Your task to perform on an android device: toggle show notifications on the lock screen Image 0: 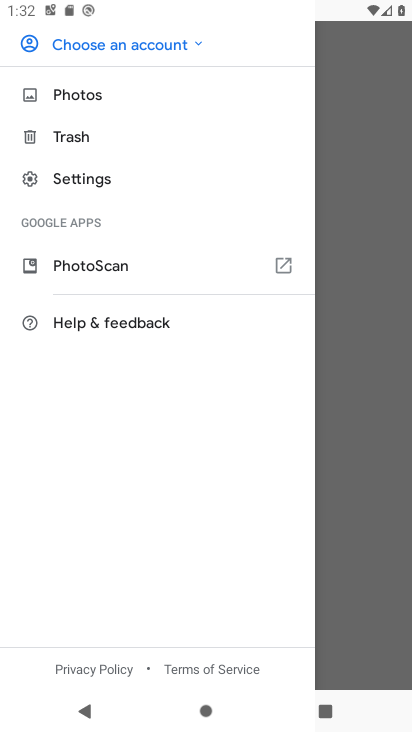
Step 0: press home button
Your task to perform on an android device: toggle show notifications on the lock screen Image 1: 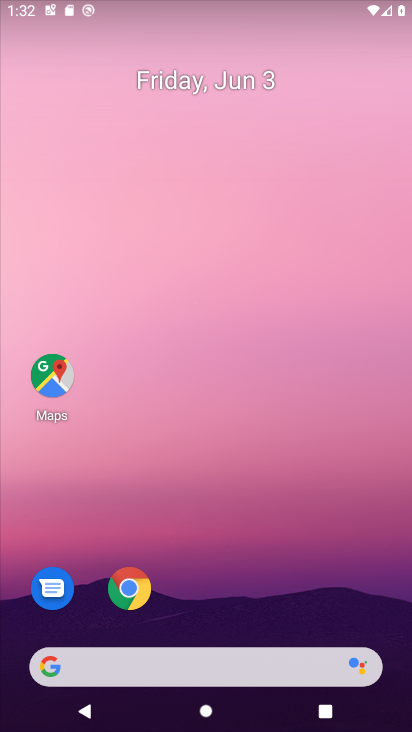
Step 1: drag from (181, 663) to (247, 101)
Your task to perform on an android device: toggle show notifications on the lock screen Image 2: 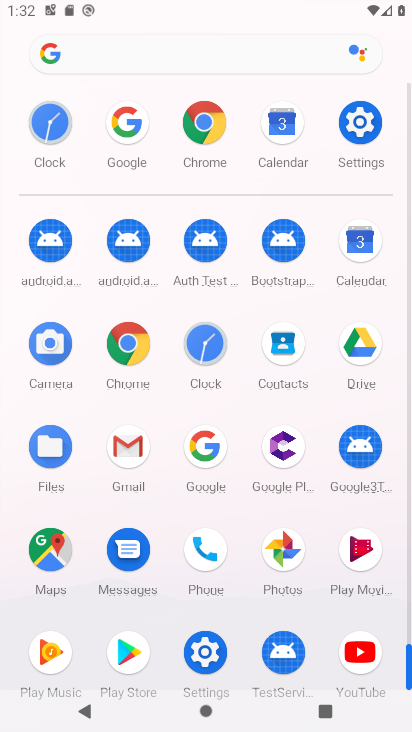
Step 2: click (368, 151)
Your task to perform on an android device: toggle show notifications on the lock screen Image 3: 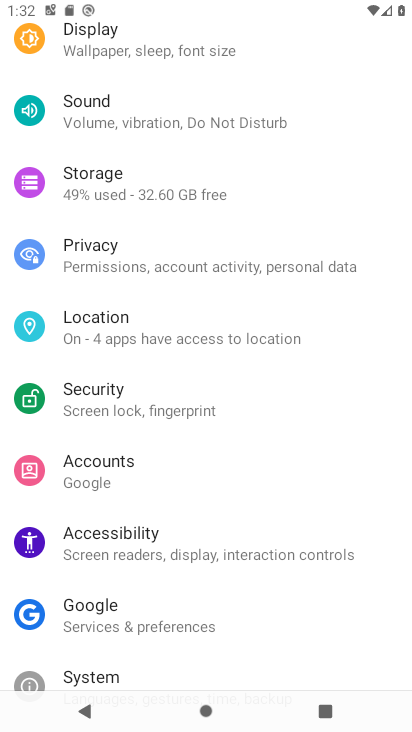
Step 3: drag from (176, 464) to (139, 570)
Your task to perform on an android device: toggle show notifications on the lock screen Image 4: 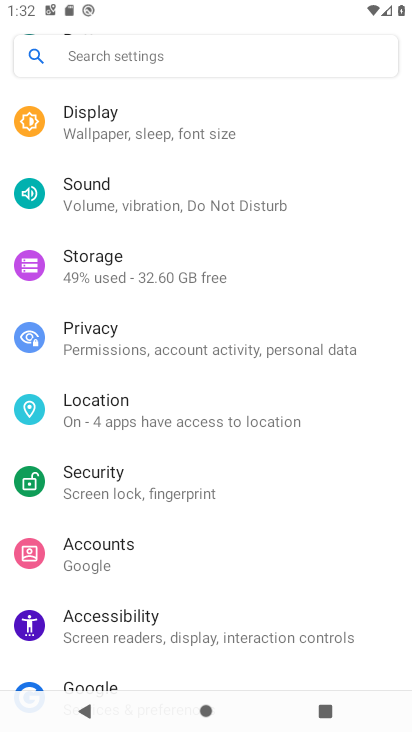
Step 4: drag from (187, 295) to (140, 572)
Your task to perform on an android device: toggle show notifications on the lock screen Image 5: 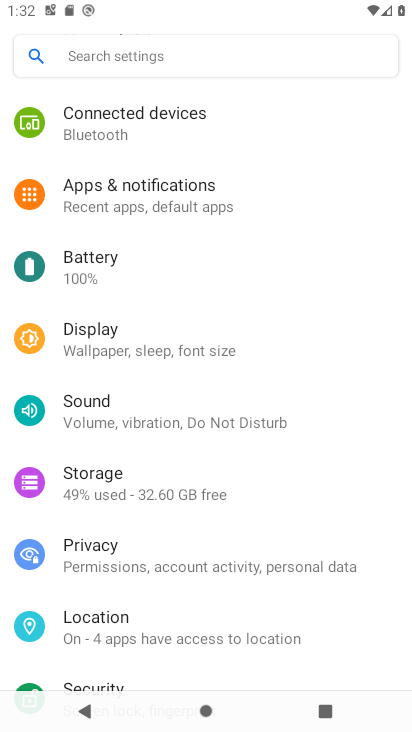
Step 5: click (212, 204)
Your task to perform on an android device: toggle show notifications on the lock screen Image 6: 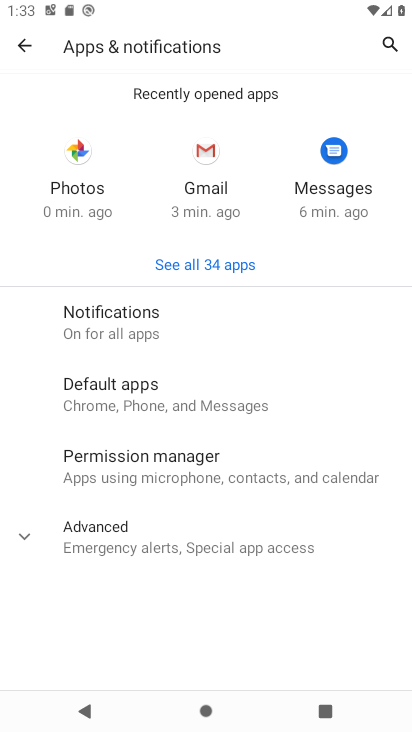
Step 6: click (180, 332)
Your task to perform on an android device: toggle show notifications on the lock screen Image 7: 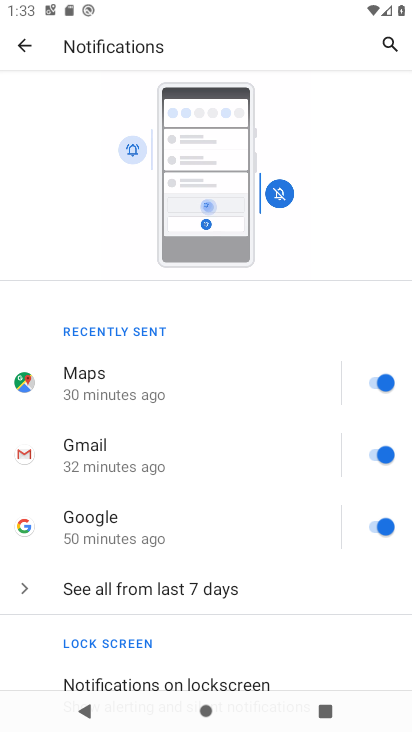
Step 7: click (228, 678)
Your task to perform on an android device: toggle show notifications on the lock screen Image 8: 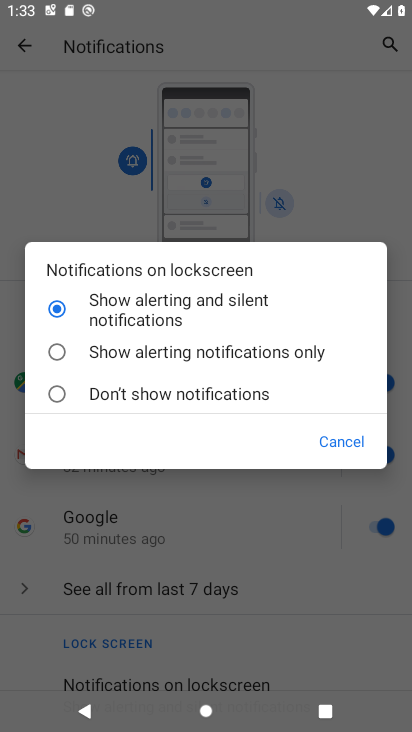
Step 8: click (128, 397)
Your task to perform on an android device: toggle show notifications on the lock screen Image 9: 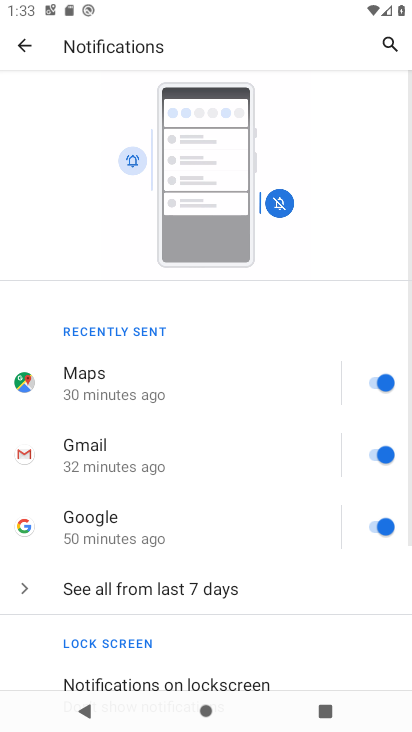
Step 9: task complete